Your task to perform on an android device: Do I have any events tomorrow? Image 0: 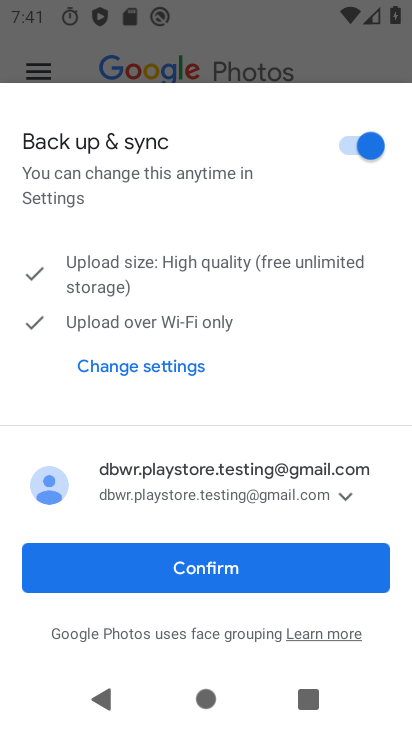
Step 0: press home button
Your task to perform on an android device: Do I have any events tomorrow? Image 1: 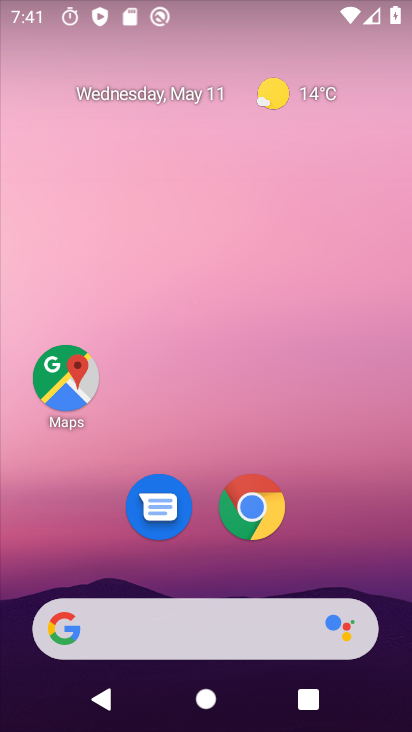
Step 1: drag from (350, 528) to (342, 113)
Your task to perform on an android device: Do I have any events tomorrow? Image 2: 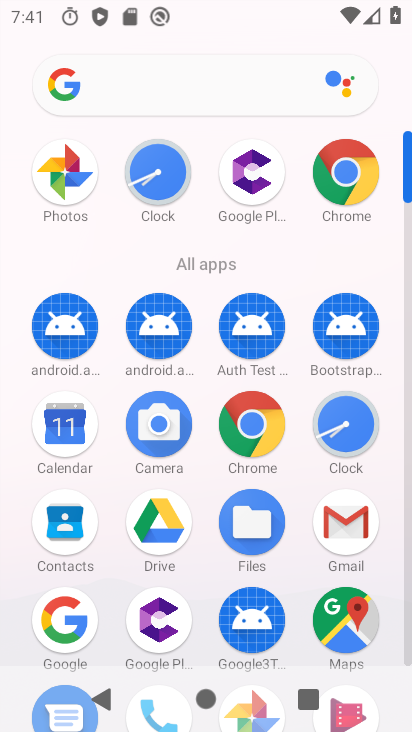
Step 2: click (74, 445)
Your task to perform on an android device: Do I have any events tomorrow? Image 3: 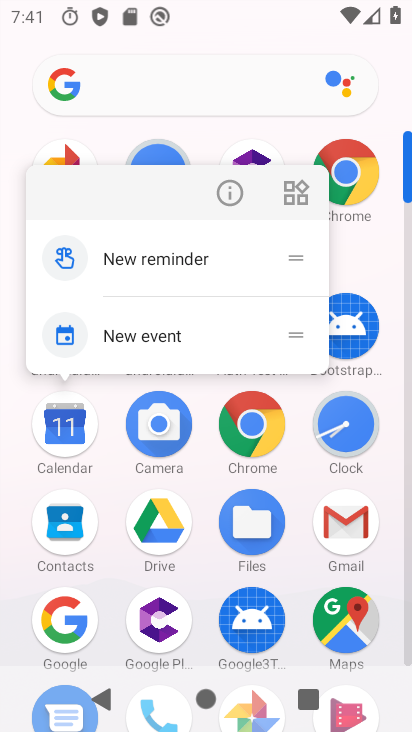
Step 3: click (54, 440)
Your task to perform on an android device: Do I have any events tomorrow? Image 4: 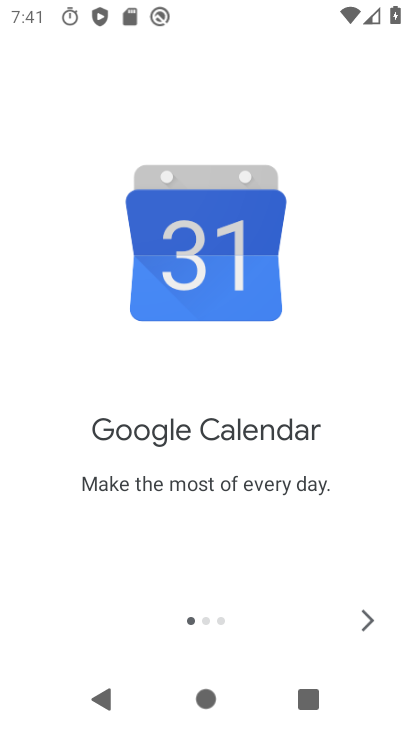
Step 4: click (367, 629)
Your task to perform on an android device: Do I have any events tomorrow? Image 5: 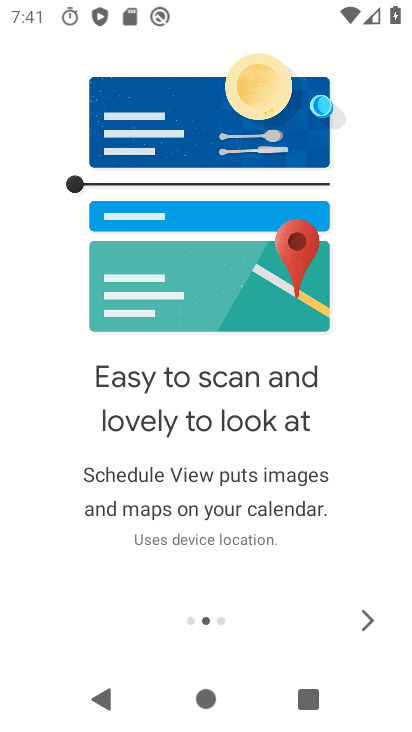
Step 5: click (367, 627)
Your task to perform on an android device: Do I have any events tomorrow? Image 6: 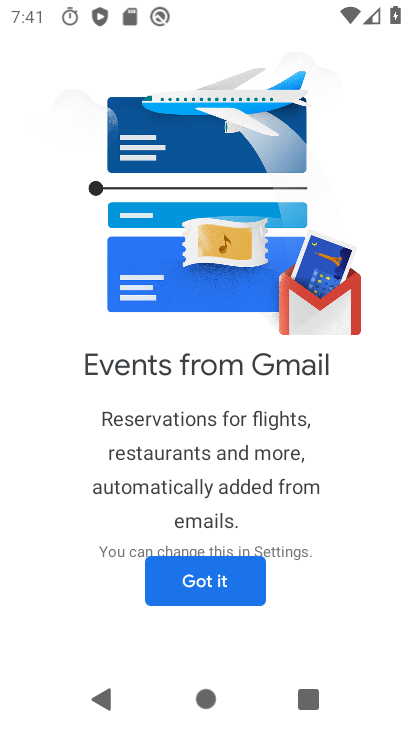
Step 6: click (228, 574)
Your task to perform on an android device: Do I have any events tomorrow? Image 7: 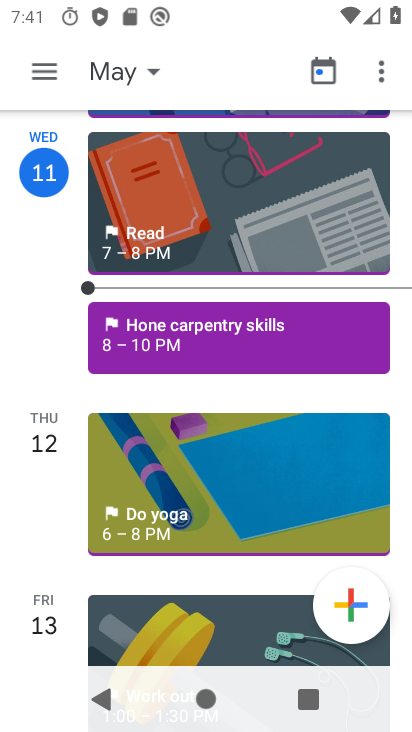
Step 7: click (116, 67)
Your task to perform on an android device: Do I have any events tomorrow? Image 8: 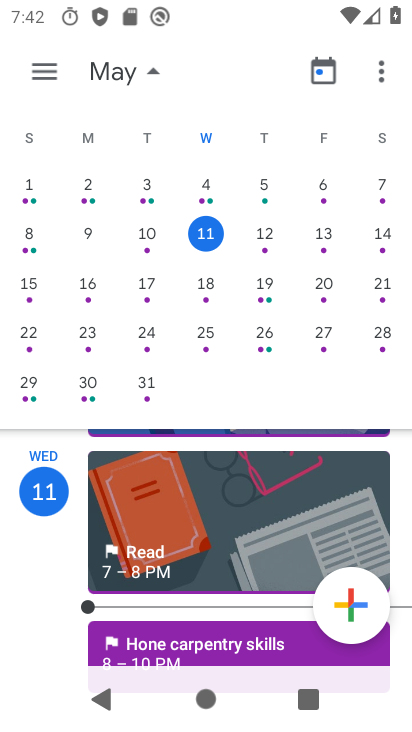
Step 8: click (259, 238)
Your task to perform on an android device: Do I have any events tomorrow? Image 9: 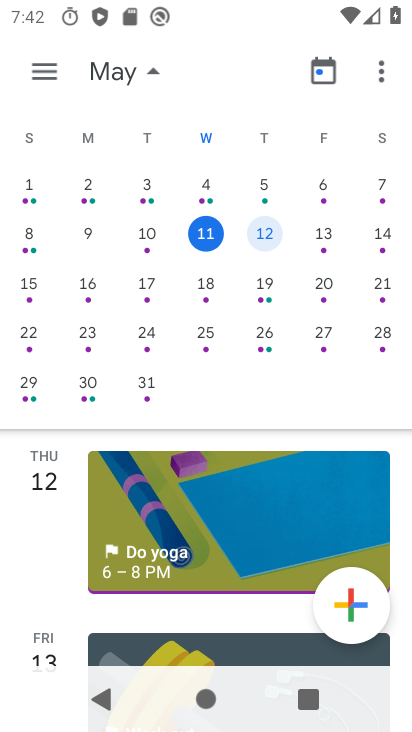
Step 9: task complete